Your task to perform on an android device: Open sound settings Image 0: 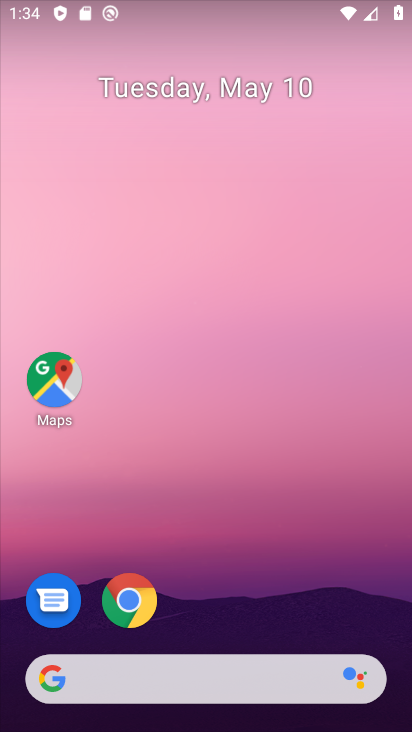
Step 0: drag from (216, 664) to (226, 101)
Your task to perform on an android device: Open sound settings Image 1: 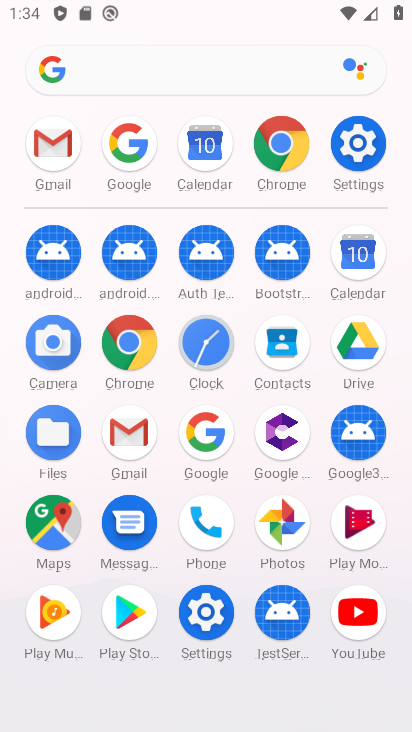
Step 1: click (373, 170)
Your task to perform on an android device: Open sound settings Image 2: 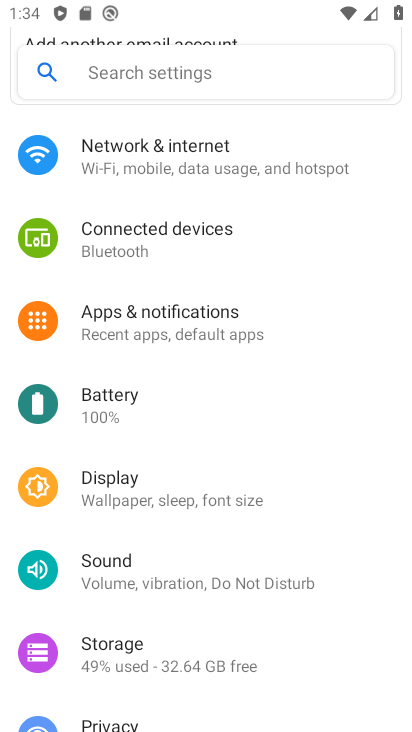
Step 2: click (231, 569)
Your task to perform on an android device: Open sound settings Image 3: 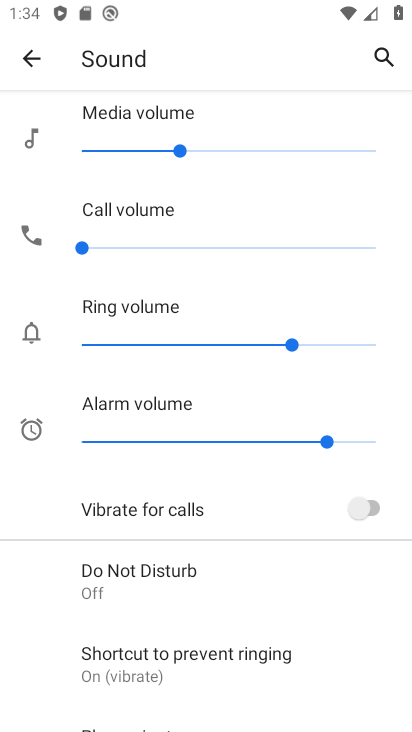
Step 3: task complete